Your task to perform on an android device: Open internet settings Image 0: 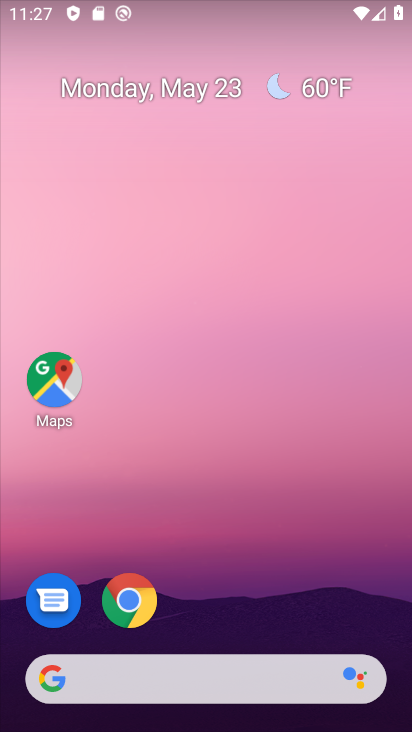
Step 0: press home button
Your task to perform on an android device: Open internet settings Image 1: 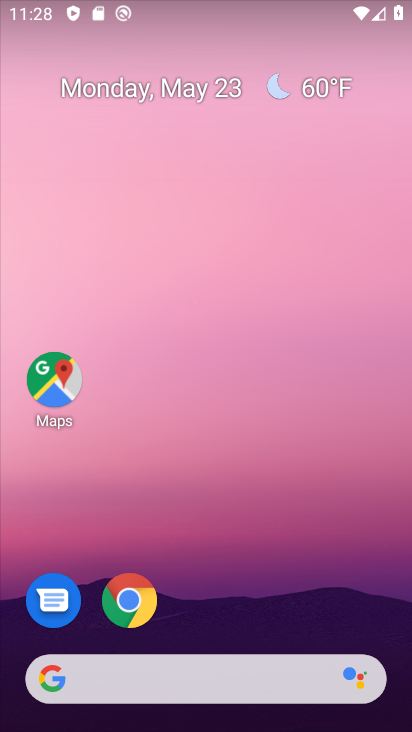
Step 1: drag from (261, 718) to (210, 248)
Your task to perform on an android device: Open internet settings Image 2: 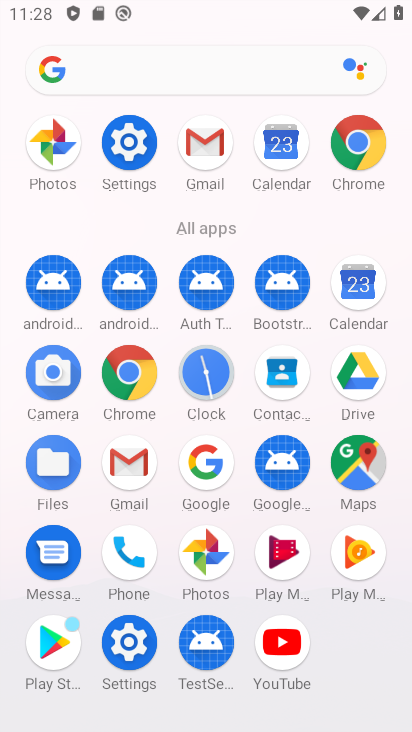
Step 2: click (139, 156)
Your task to perform on an android device: Open internet settings Image 3: 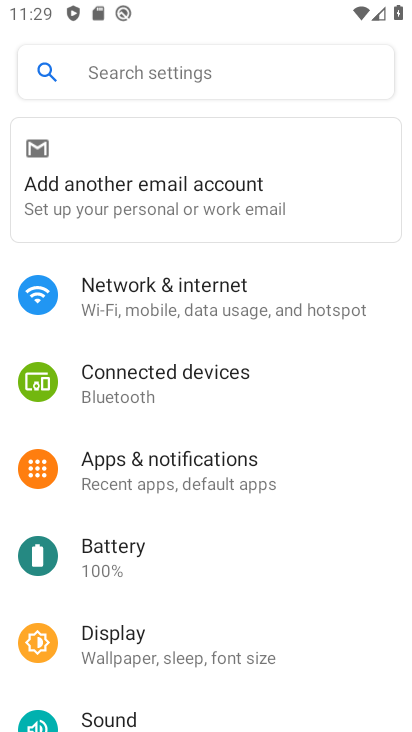
Step 3: click (154, 304)
Your task to perform on an android device: Open internet settings Image 4: 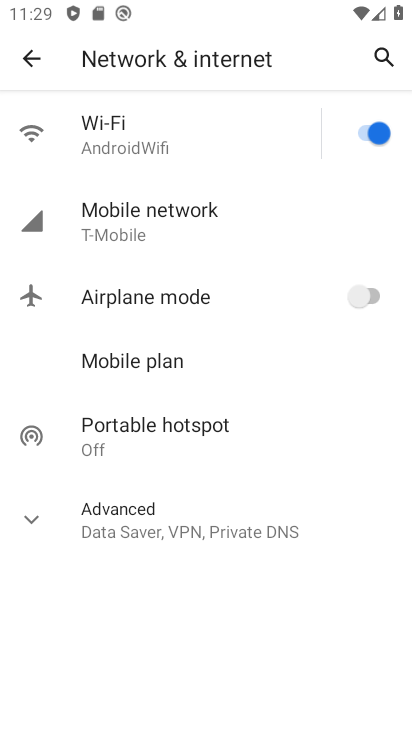
Step 4: task complete